Your task to perform on an android device: turn on sleep mode Image 0: 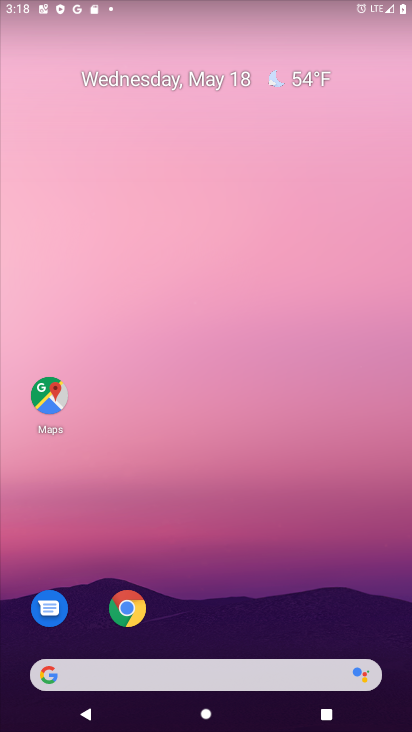
Step 0: drag from (356, 635) to (340, 0)
Your task to perform on an android device: turn on sleep mode Image 1: 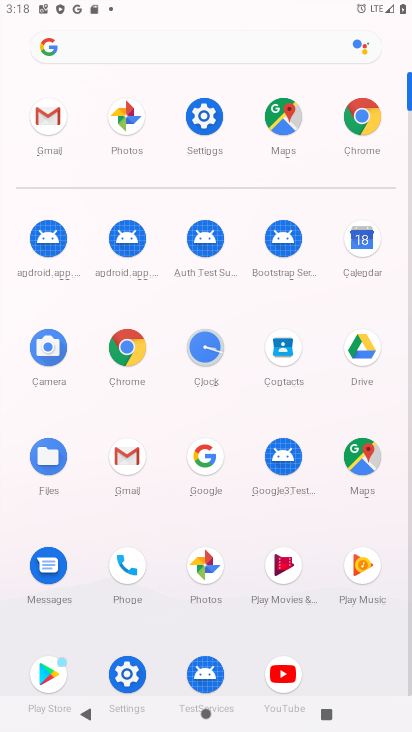
Step 1: click (202, 122)
Your task to perform on an android device: turn on sleep mode Image 2: 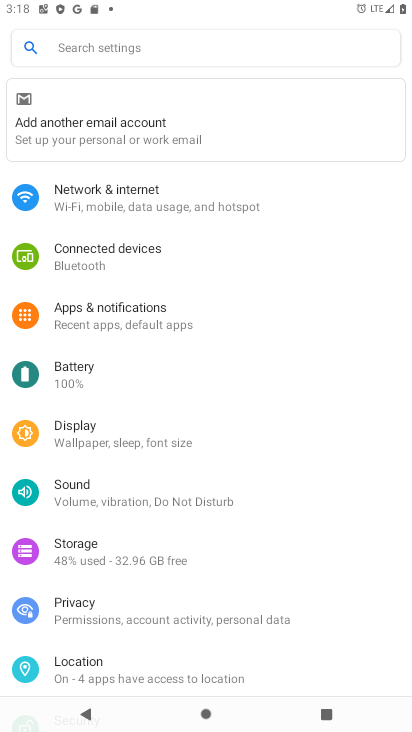
Step 2: click (140, 441)
Your task to perform on an android device: turn on sleep mode Image 3: 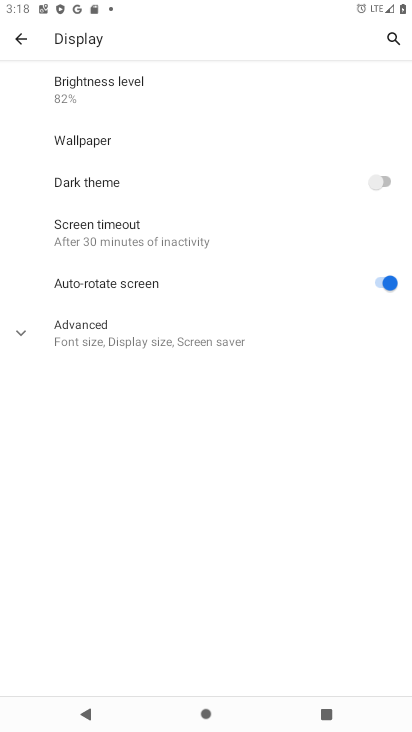
Step 3: click (24, 337)
Your task to perform on an android device: turn on sleep mode Image 4: 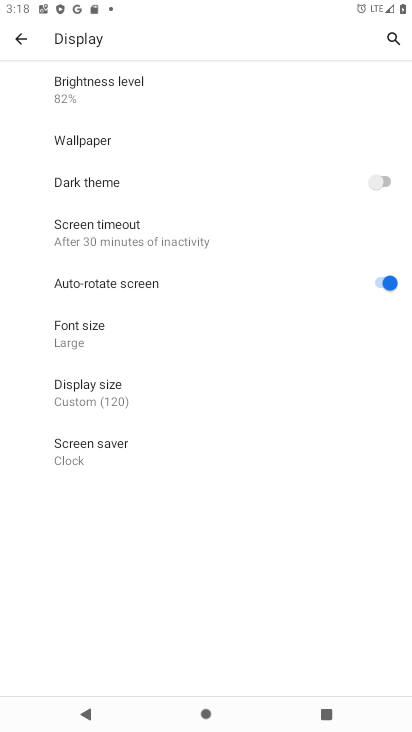
Step 4: task complete